Your task to perform on an android device: What is the news today? Image 0: 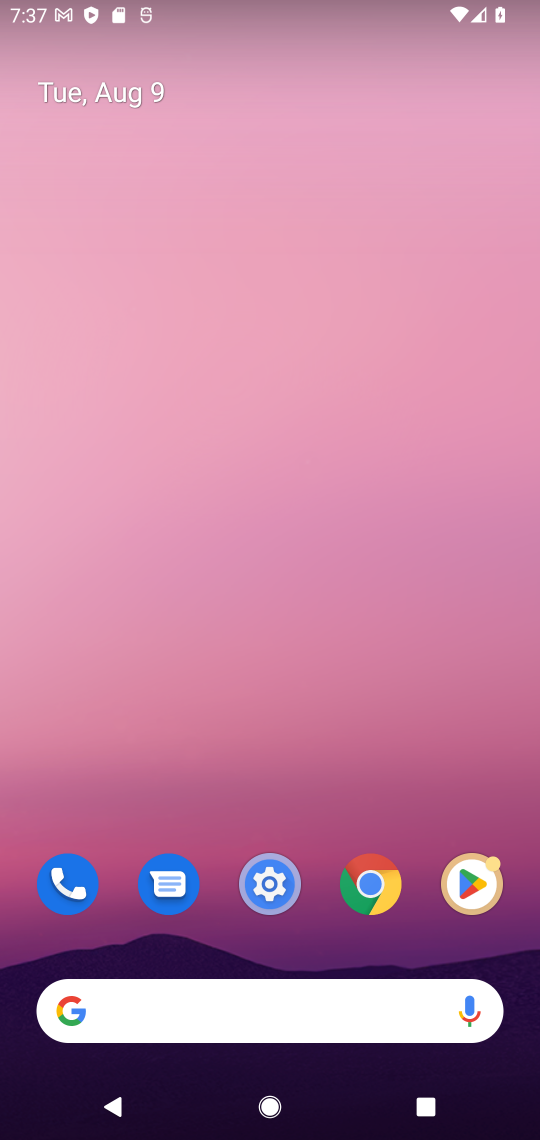
Step 0: drag from (24, 653) to (525, 822)
Your task to perform on an android device: What is the news today? Image 1: 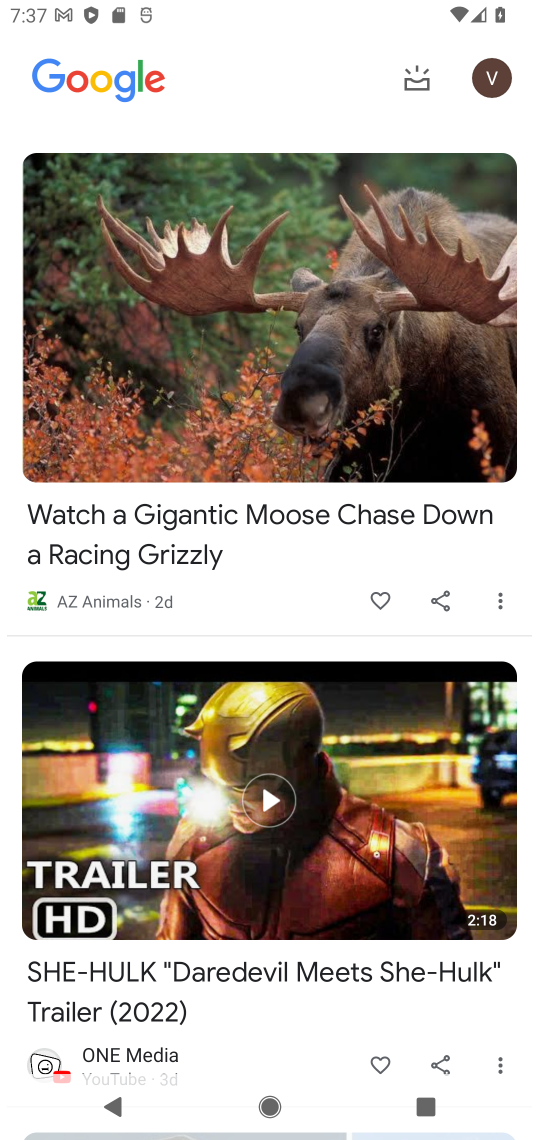
Step 1: task complete